Your task to perform on an android device: toggle notifications settings in the gmail app Image 0: 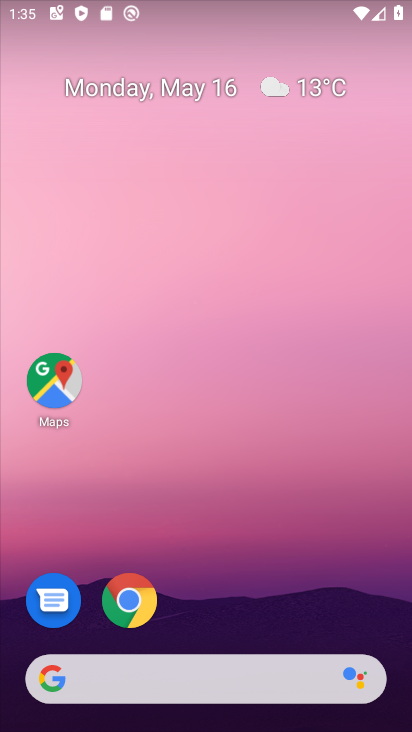
Step 0: drag from (267, 647) to (223, 204)
Your task to perform on an android device: toggle notifications settings in the gmail app Image 1: 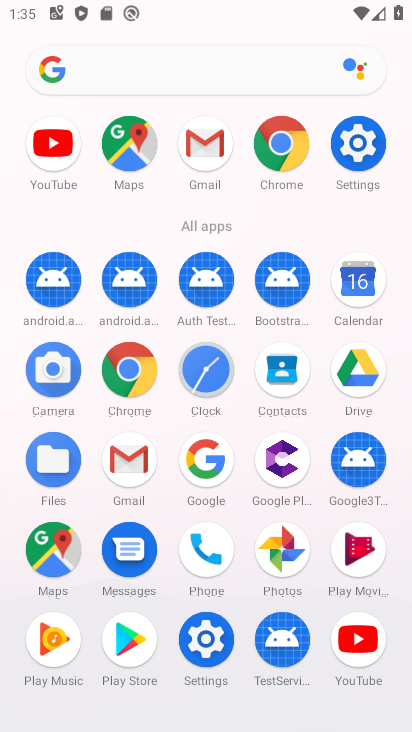
Step 1: click (211, 129)
Your task to perform on an android device: toggle notifications settings in the gmail app Image 2: 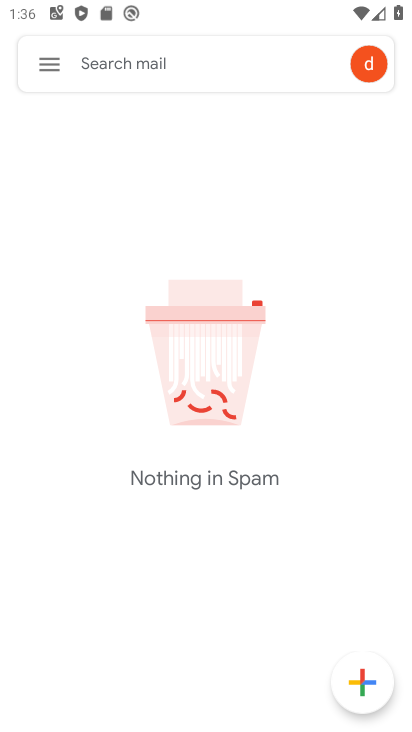
Step 2: click (42, 61)
Your task to perform on an android device: toggle notifications settings in the gmail app Image 3: 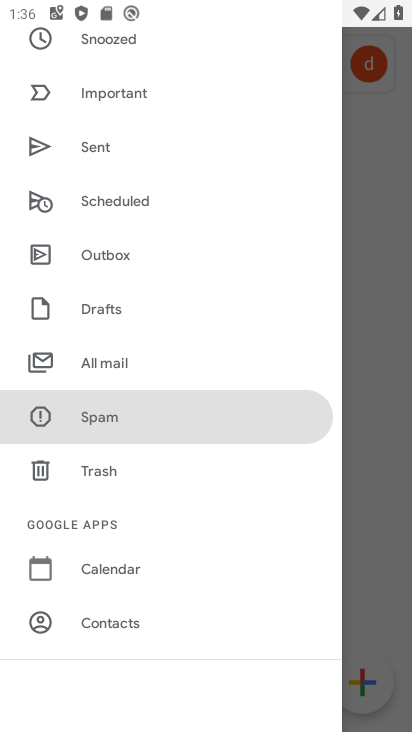
Step 3: drag from (145, 598) to (130, 300)
Your task to perform on an android device: toggle notifications settings in the gmail app Image 4: 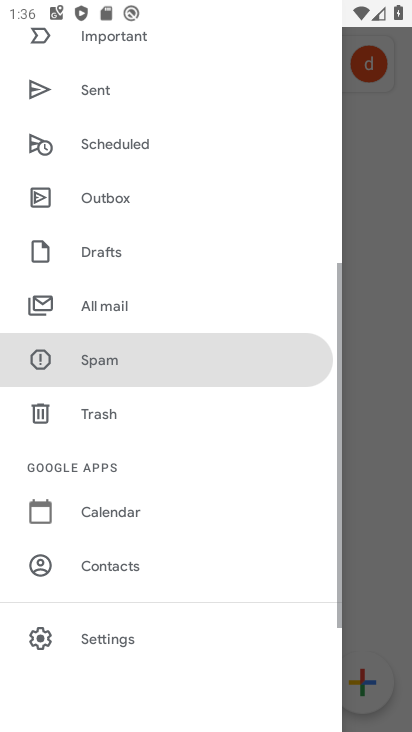
Step 4: click (126, 594)
Your task to perform on an android device: toggle notifications settings in the gmail app Image 5: 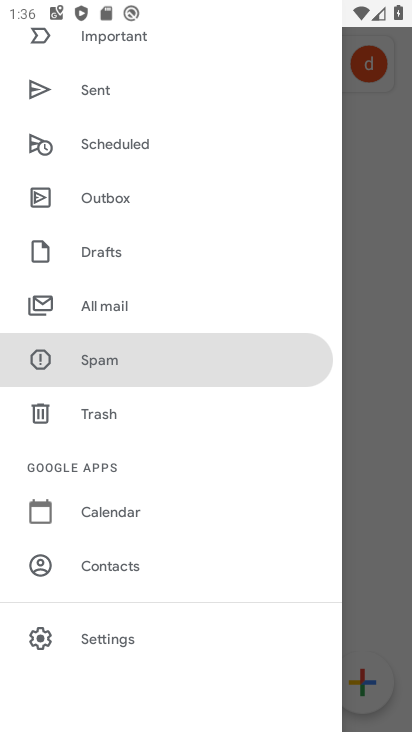
Step 5: click (124, 641)
Your task to perform on an android device: toggle notifications settings in the gmail app Image 6: 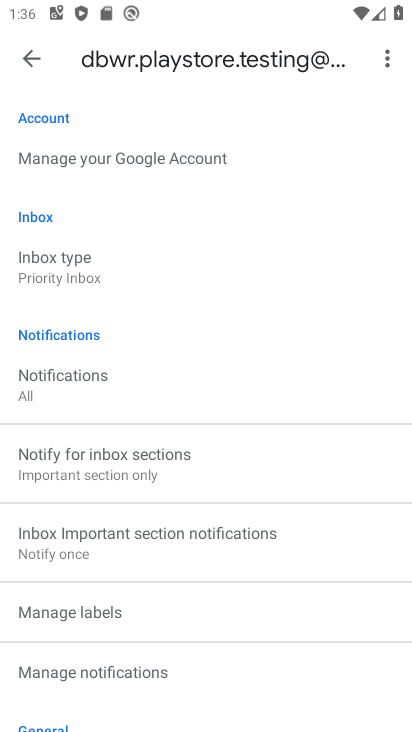
Step 6: click (107, 675)
Your task to perform on an android device: toggle notifications settings in the gmail app Image 7: 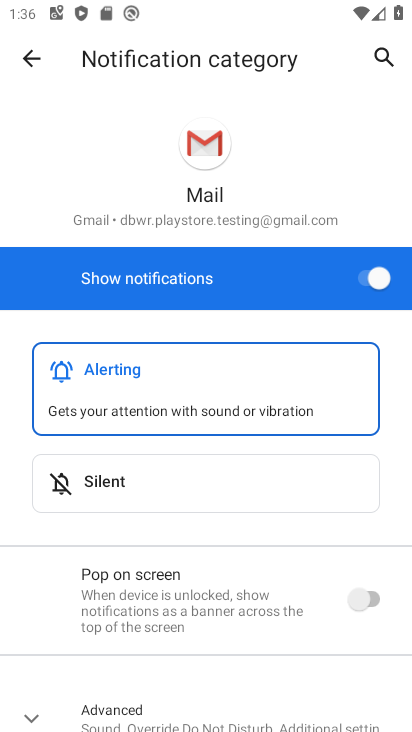
Step 7: click (127, 476)
Your task to perform on an android device: toggle notifications settings in the gmail app Image 8: 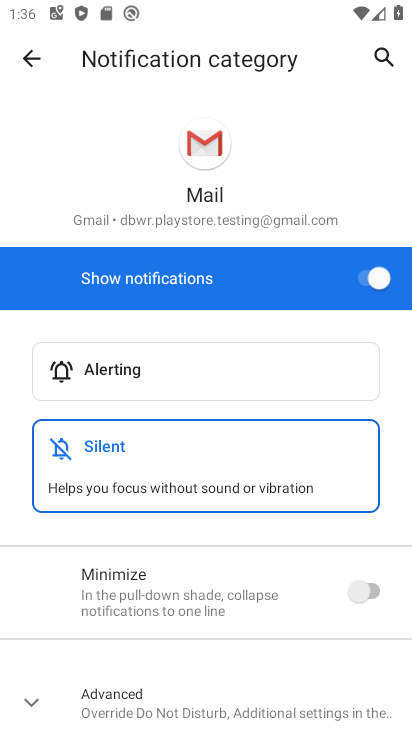
Step 8: task complete